Your task to perform on an android device: change the upload size in google photos Image 0: 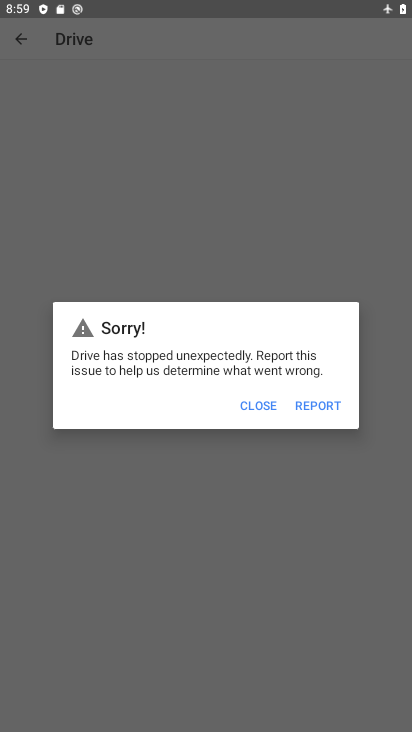
Step 0: press home button
Your task to perform on an android device: change the upload size in google photos Image 1: 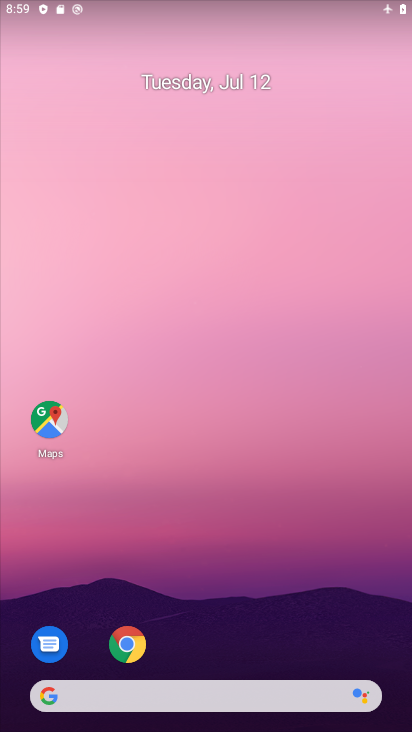
Step 1: click (233, 209)
Your task to perform on an android device: change the upload size in google photos Image 2: 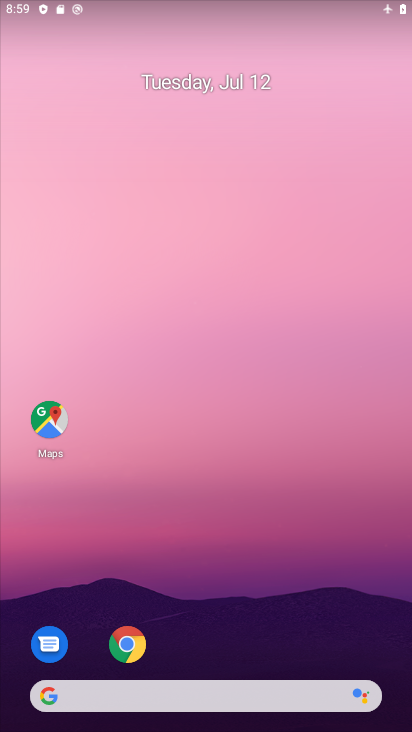
Step 2: drag from (217, 644) to (230, 200)
Your task to perform on an android device: change the upload size in google photos Image 3: 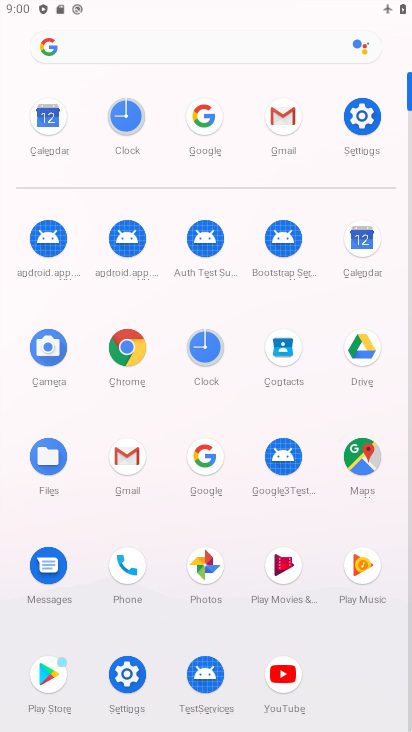
Step 3: click (216, 567)
Your task to perform on an android device: change the upload size in google photos Image 4: 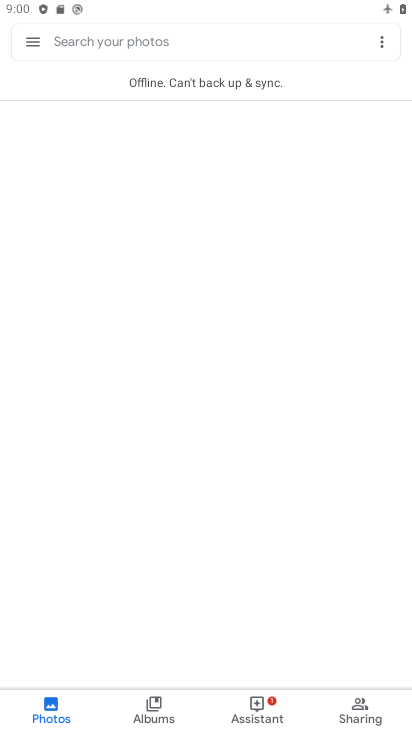
Step 4: click (19, 38)
Your task to perform on an android device: change the upload size in google photos Image 5: 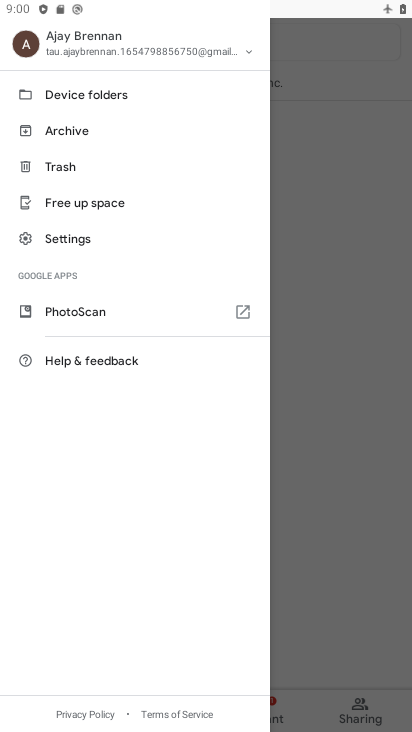
Step 5: click (89, 247)
Your task to perform on an android device: change the upload size in google photos Image 6: 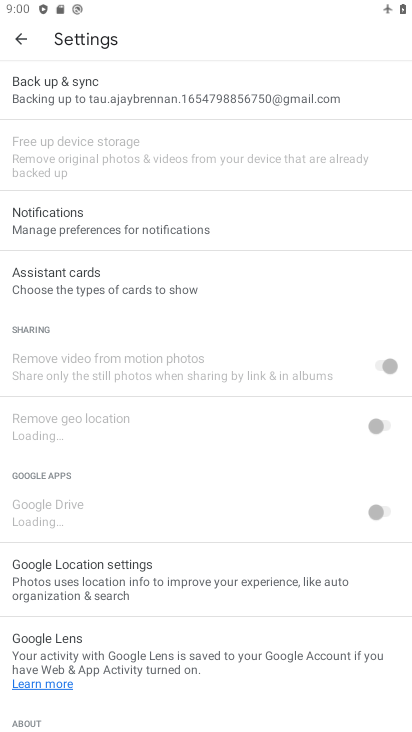
Step 6: click (138, 99)
Your task to perform on an android device: change the upload size in google photos Image 7: 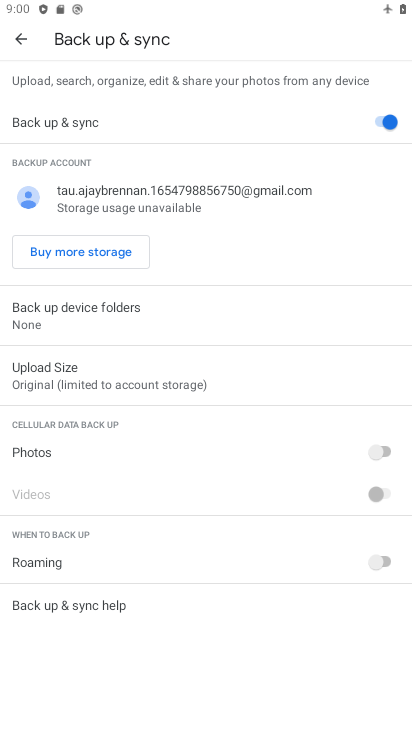
Step 7: click (170, 373)
Your task to perform on an android device: change the upload size in google photos Image 8: 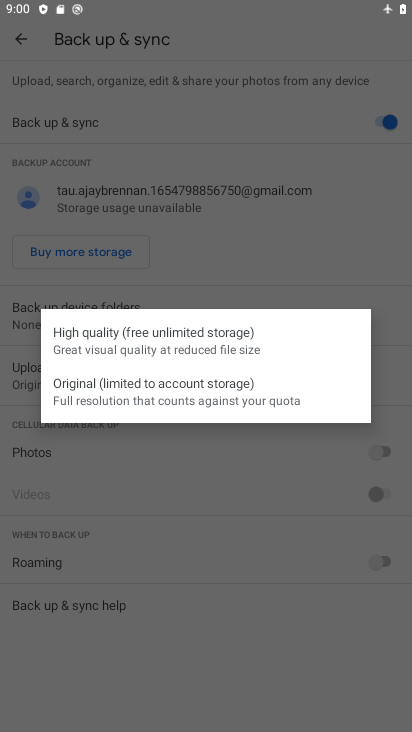
Step 8: click (139, 344)
Your task to perform on an android device: change the upload size in google photos Image 9: 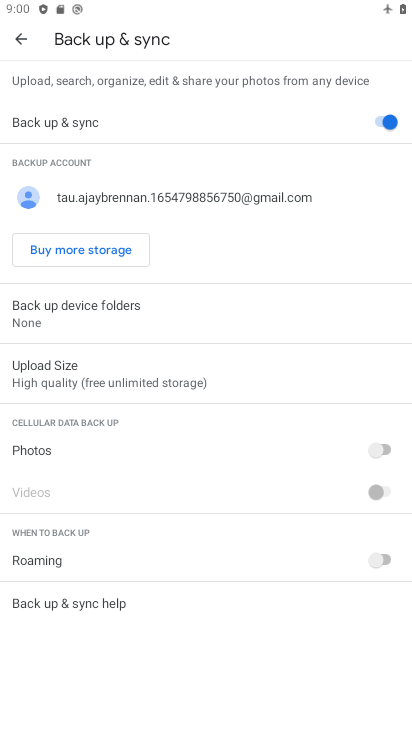
Step 9: task complete